Your task to perform on an android device: Toggle the flashlight Image 0: 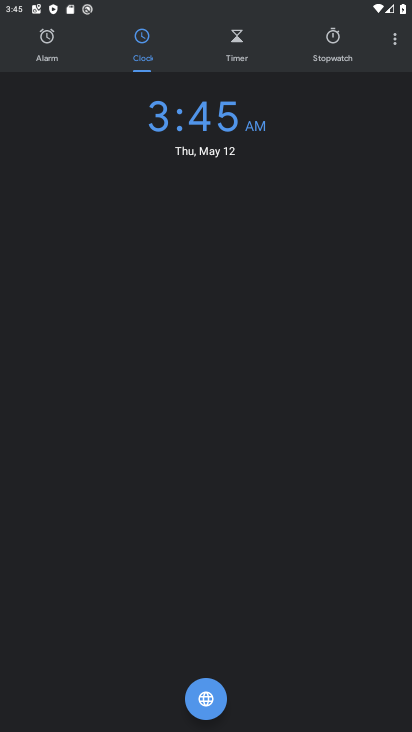
Step 0: press home button
Your task to perform on an android device: Toggle the flashlight Image 1: 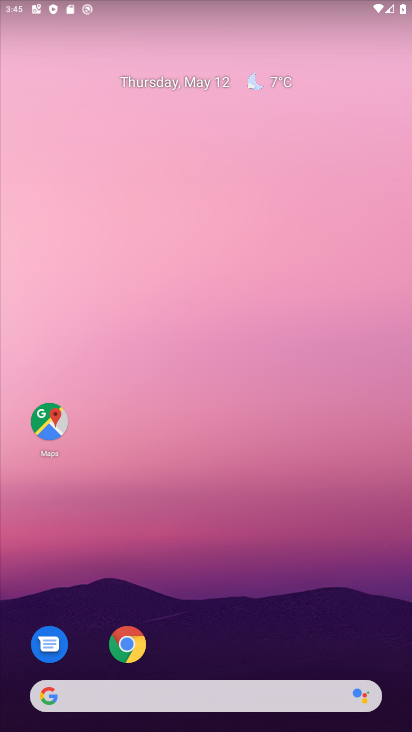
Step 1: drag from (217, 664) to (233, 119)
Your task to perform on an android device: Toggle the flashlight Image 2: 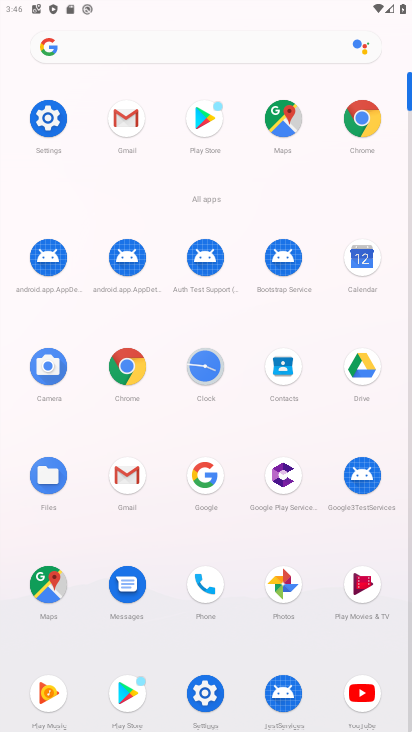
Step 2: click (46, 118)
Your task to perform on an android device: Toggle the flashlight Image 3: 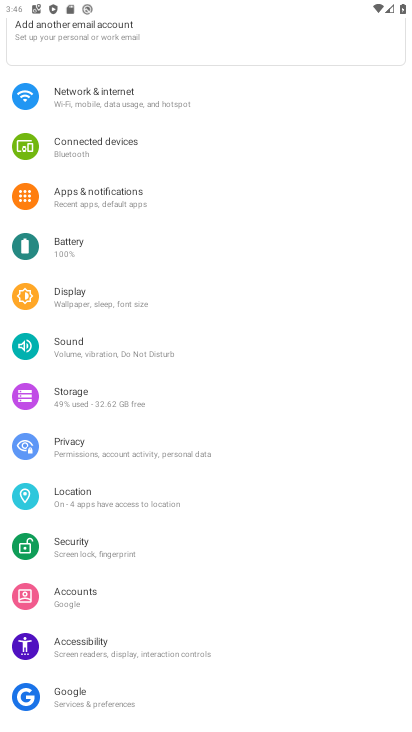
Step 3: drag from (137, 193) to (130, 628)
Your task to perform on an android device: Toggle the flashlight Image 4: 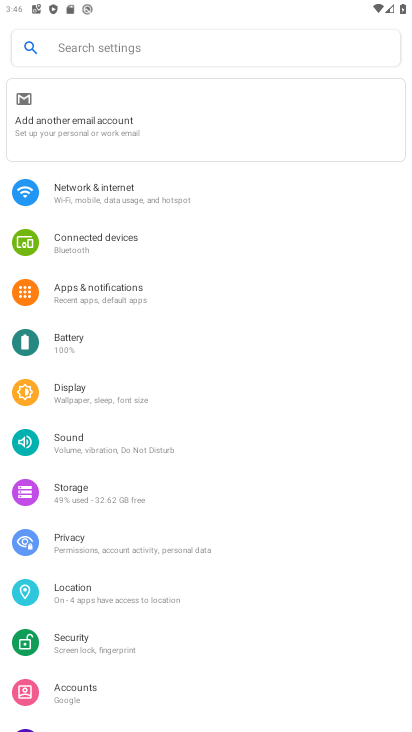
Step 4: click (108, 40)
Your task to perform on an android device: Toggle the flashlight Image 5: 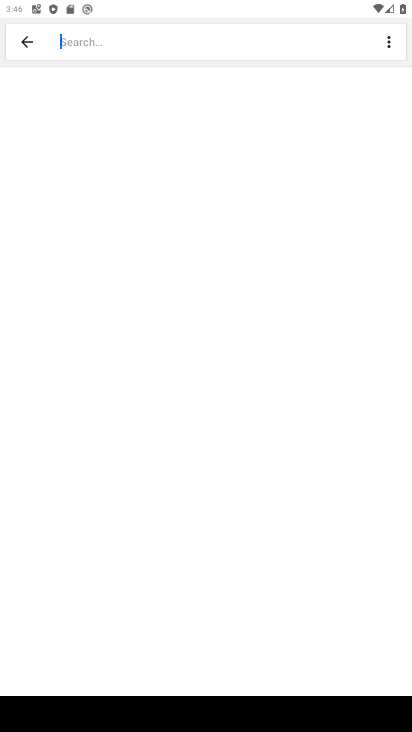
Step 5: type "flashlight"
Your task to perform on an android device: Toggle the flashlight Image 6: 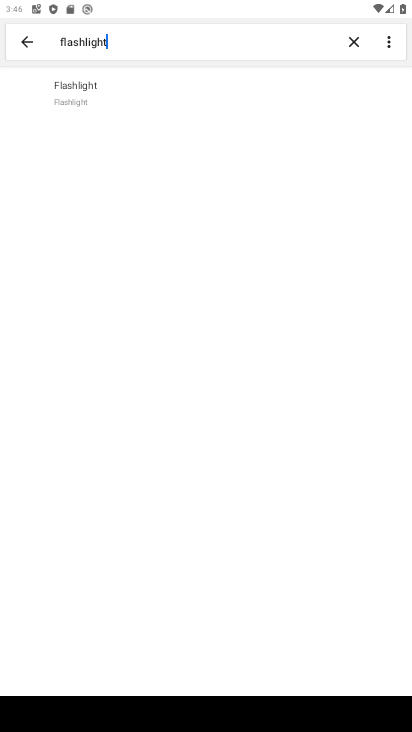
Step 6: click (86, 85)
Your task to perform on an android device: Toggle the flashlight Image 7: 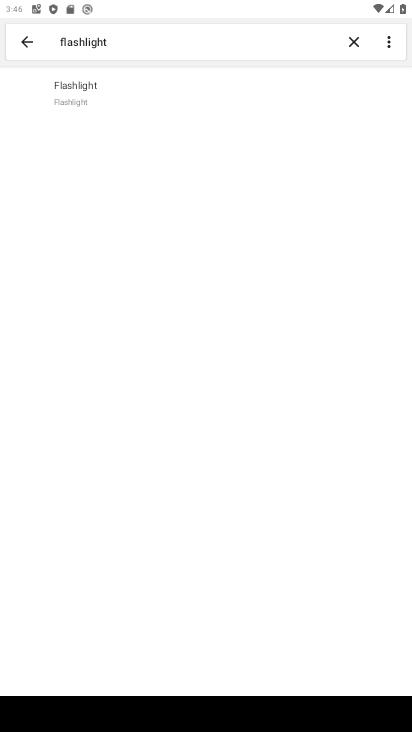
Step 7: task complete